Your task to perform on an android device: delete location history Image 0: 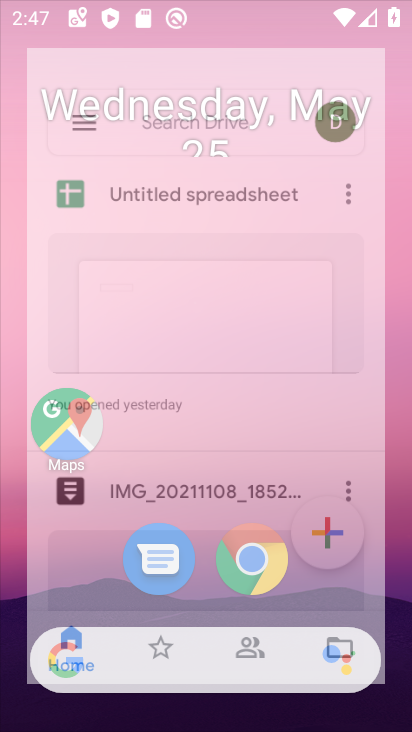
Step 0: click (250, 552)
Your task to perform on an android device: delete location history Image 1: 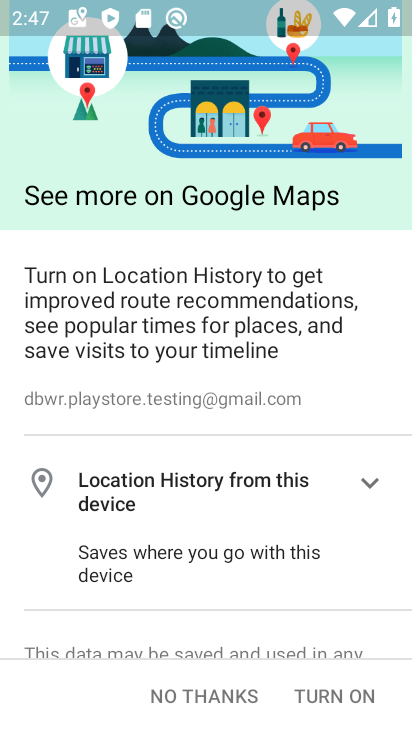
Step 1: drag from (277, 623) to (315, 72)
Your task to perform on an android device: delete location history Image 2: 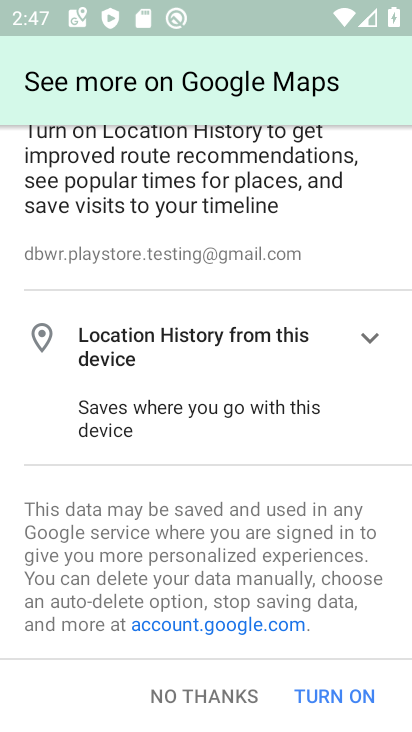
Step 2: click (345, 697)
Your task to perform on an android device: delete location history Image 3: 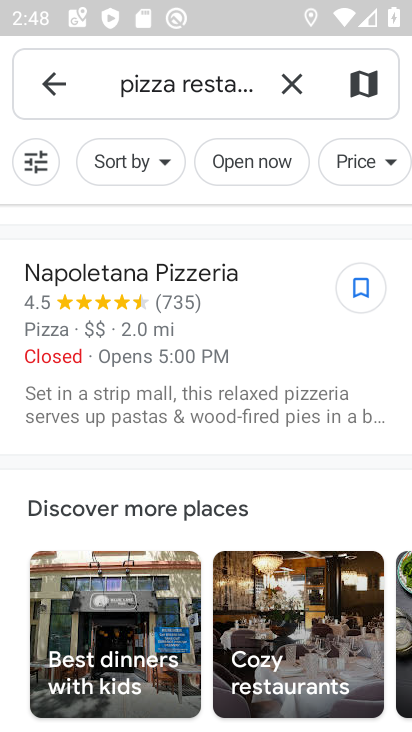
Step 3: drag from (206, 562) to (243, 129)
Your task to perform on an android device: delete location history Image 4: 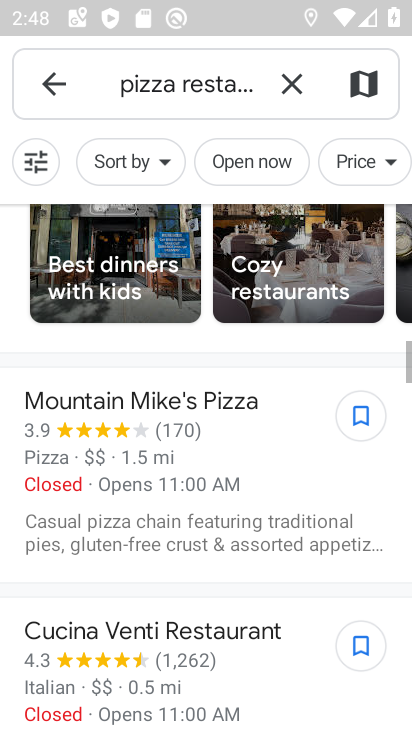
Step 4: drag from (205, 589) to (221, 177)
Your task to perform on an android device: delete location history Image 5: 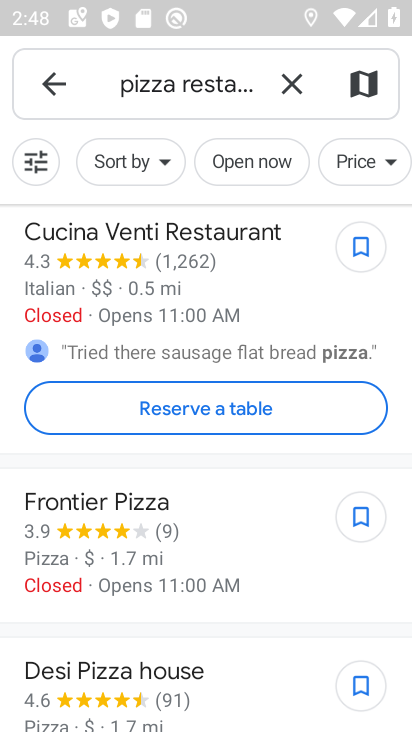
Step 5: click (64, 82)
Your task to perform on an android device: delete location history Image 6: 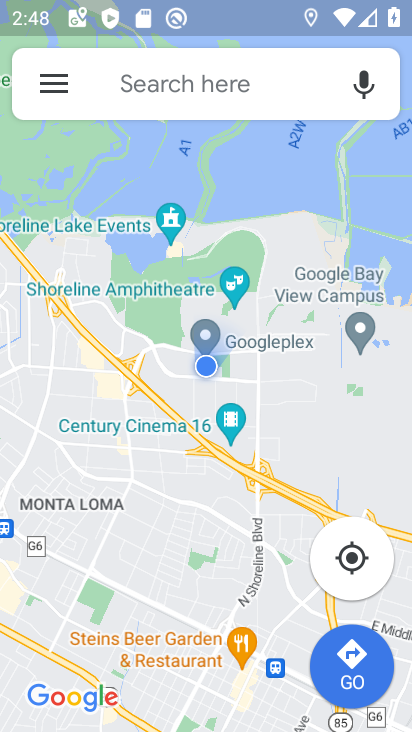
Step 6: click (21, 75)
Your task to perform on an android device: delete location history Image 7: 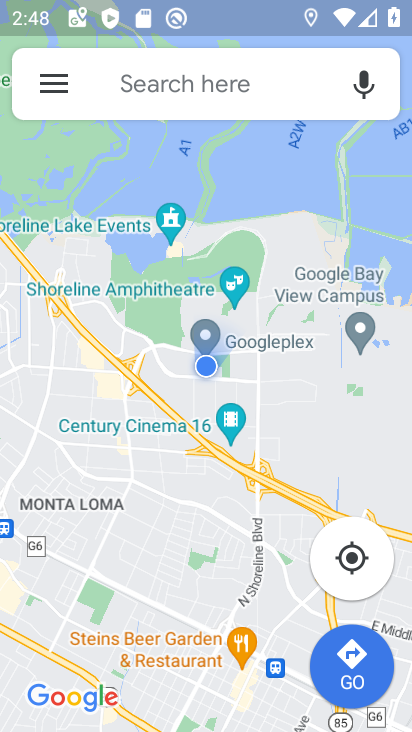
Step 7: click (54, 83)
Your task to perform on an android device: delete location history Image 8: 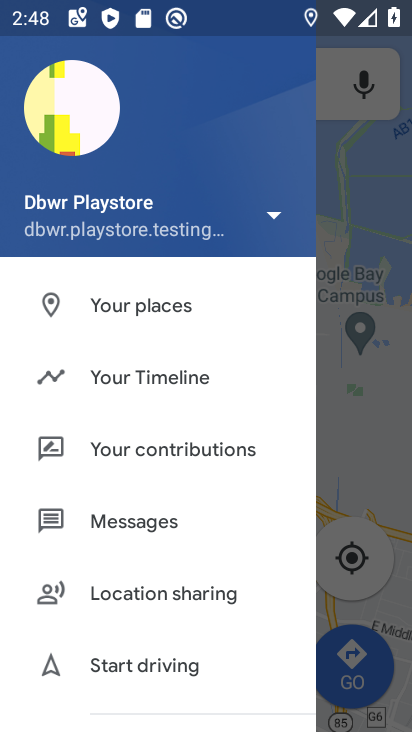
Step 8: click (223, 374)
Your task to perform on an android device: delete location history Image 9: 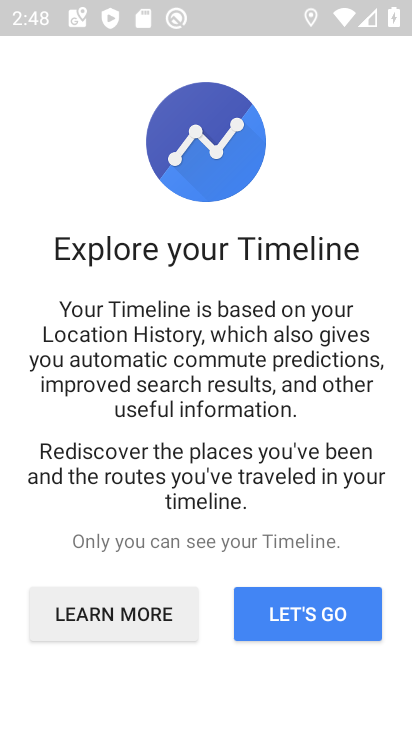
Step 9: click (316, 622)
Your task to perform on an android device: delete location history Image 10: 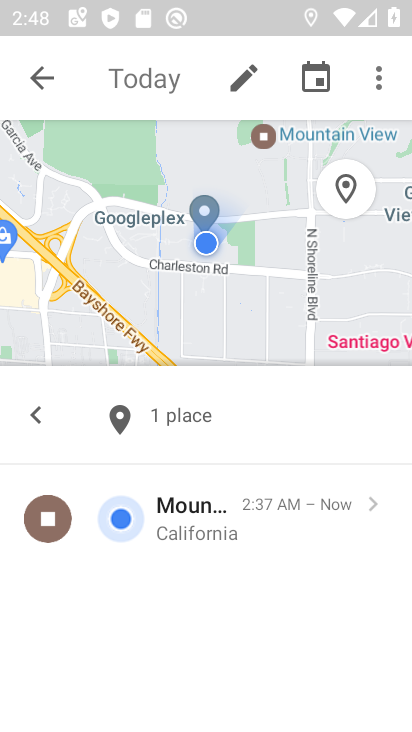
Step 10: click (380, 71)
Your task to perform on an android device: delete location history Image 11: 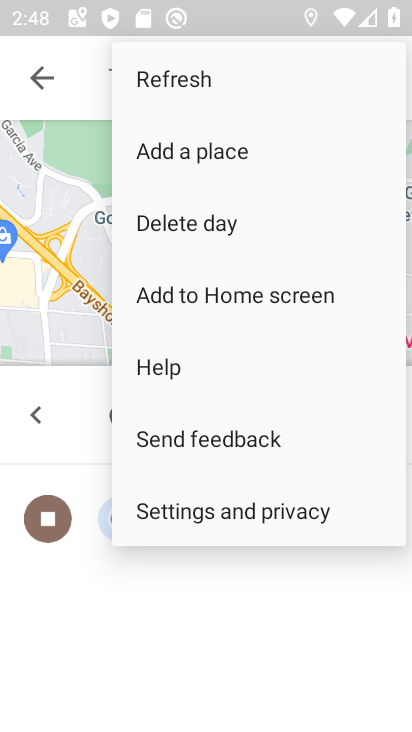
Step 11: click (337, 516)
Your task to perform on an android device: delete location history Image 12: 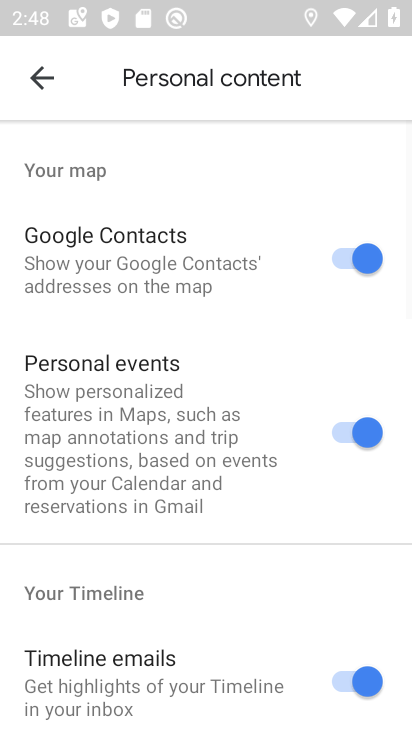
Step 12: drag from (226, 637) to (262, 184)
Your task to perform on an android device: delete location history Image 13: 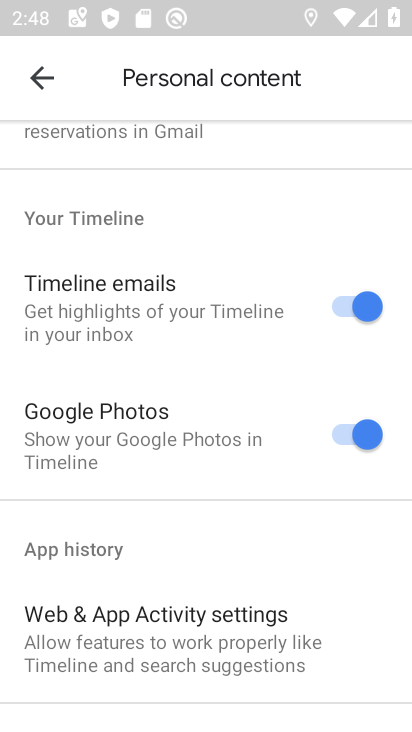
Step 13: drag from (237, 683) to (281, 84)
Your task to perform on an android device: delete location history Image 14: 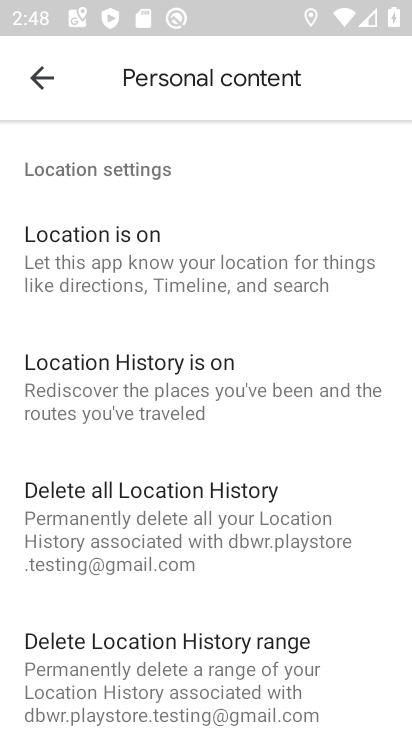
Step 14: click (180, 525)
Your task to perform on an android device: delete location history Image 15: 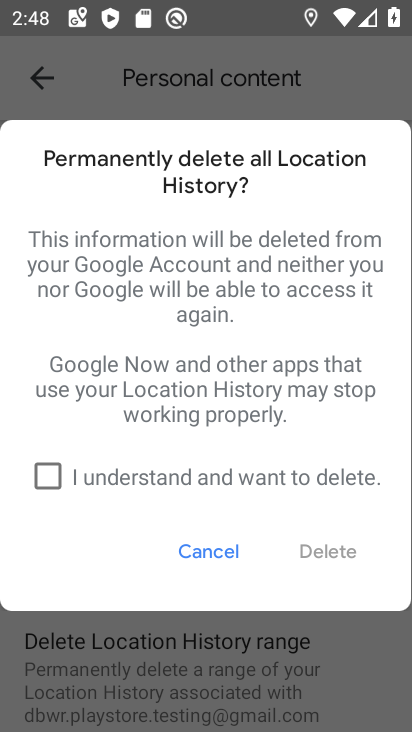
Step 15: click (52, 465)
Your task to perform on an android device: delete location history Image 16: 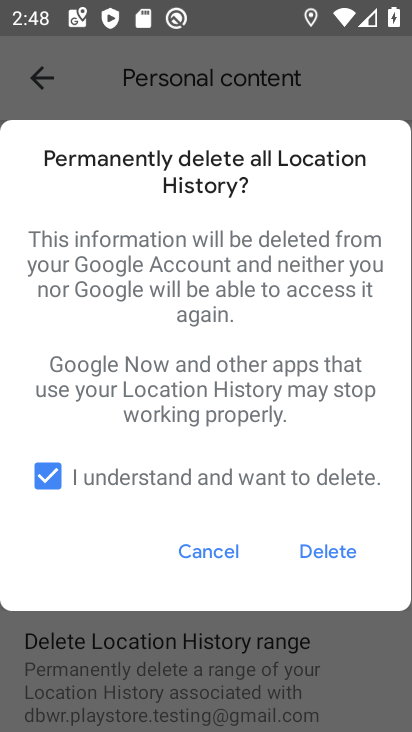
Step 16: click (328, 544)
Your task to perform on an android device: delete location history Image 17: 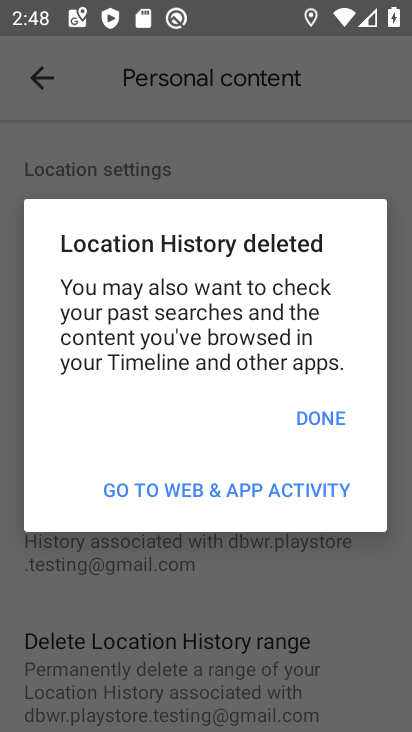
Step 17: click (320, 412)
Your task to perform on an android device: delete location history Image 18: 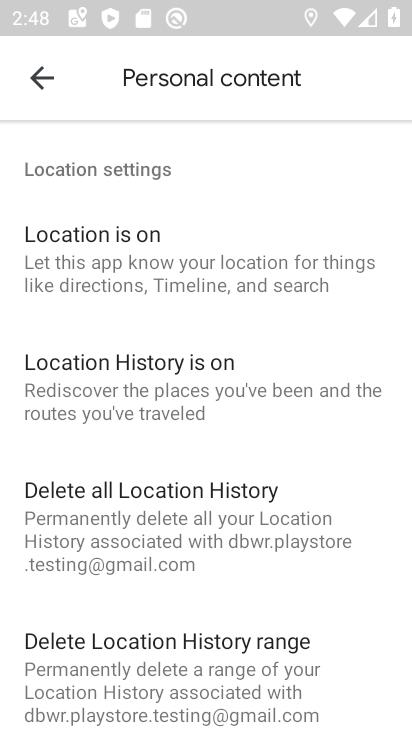
Step 18: task complete